Your task to perform on an android device: Go to wifi settings Image 0: 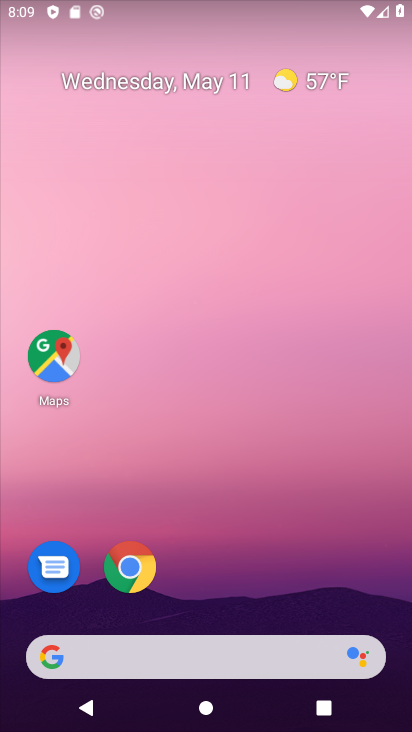
Step 0: drag from (272, 574) to (213, 95)
Your task to perform on an android device: Go to wifi settings Image 1: 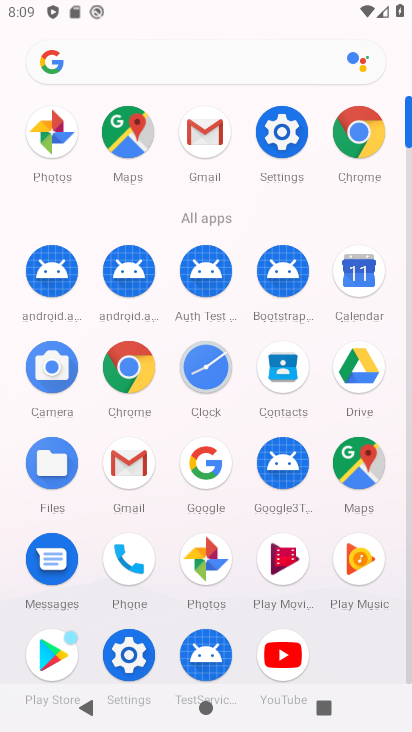
Step 1: click (286, 129)
Your task to perform on an android device: Go to wifi settings Image 2: 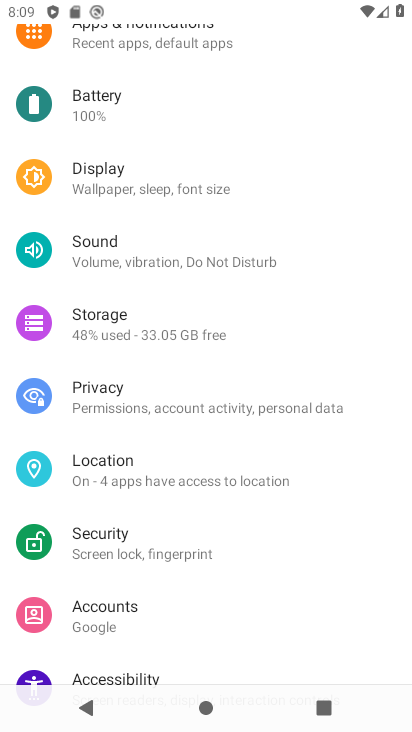
Step 2: drag from (205, 181) to (205, 674)
Your task to perform on an android device: Go to wifi settings Image 3: 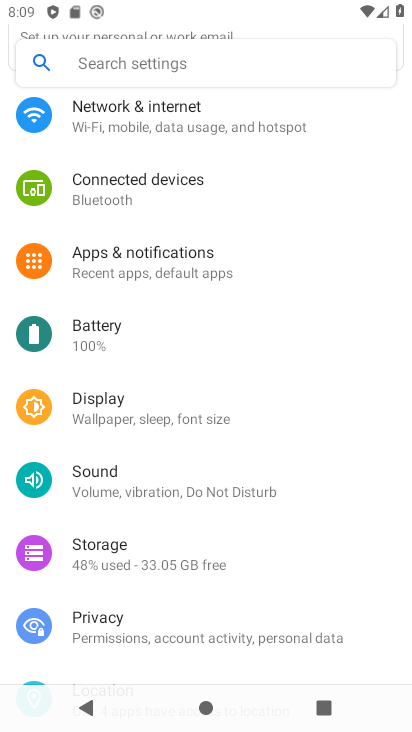
Step 3: click (157, 126)
Your task to perform on an android device: Go to wifi settings Image 4: 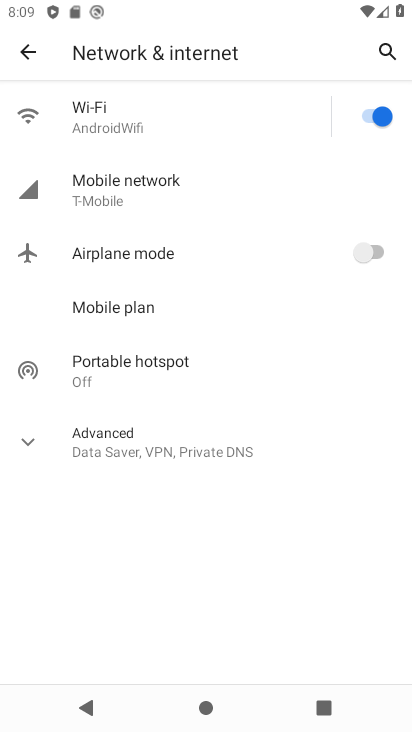
Step 4: click (120, 114)
Your task to perform on an android device: Go to wifi settings Image 5: 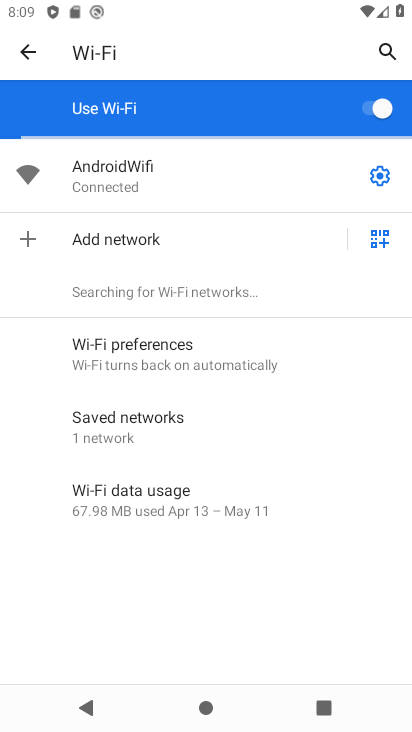
Step 5: task complete